Your task to perform on an android device: Open display settings Image 0: 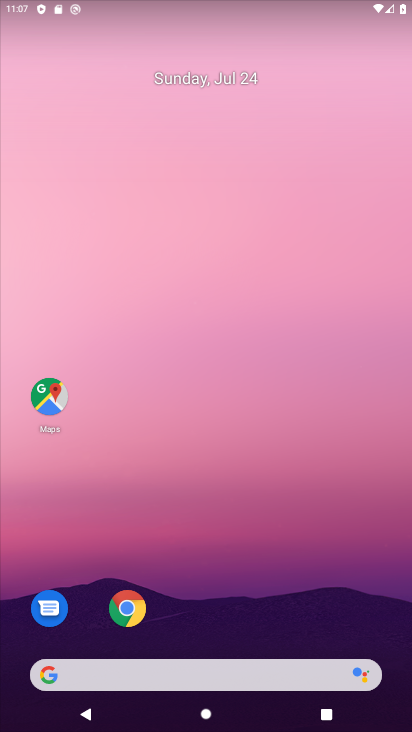
Step 0: press home button
Your task to perform on an android device: Open display settings Image 1: 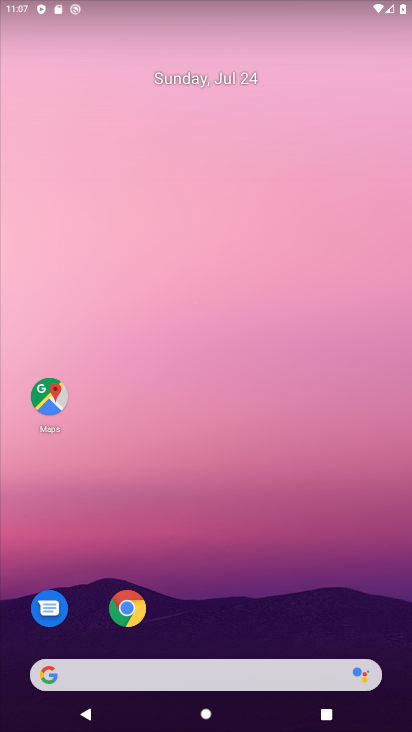
Step 1: drag from (226, 594) to (256, 4)
Your task to perform on an android device: Open display settings Image 2: 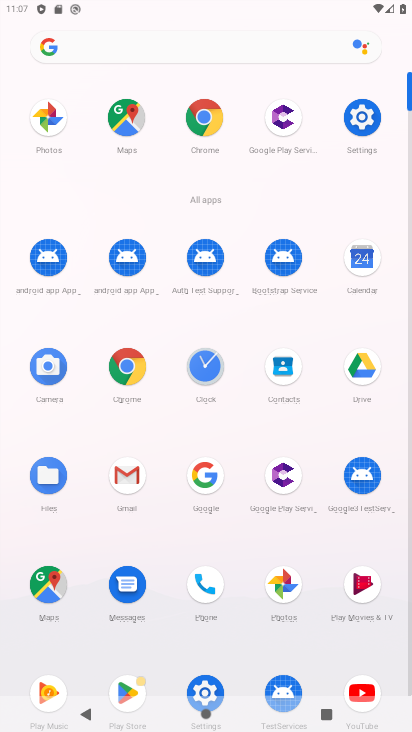
Step 2: click (359, 127)
Your task to perform on an android device: Open display settings Image 3: 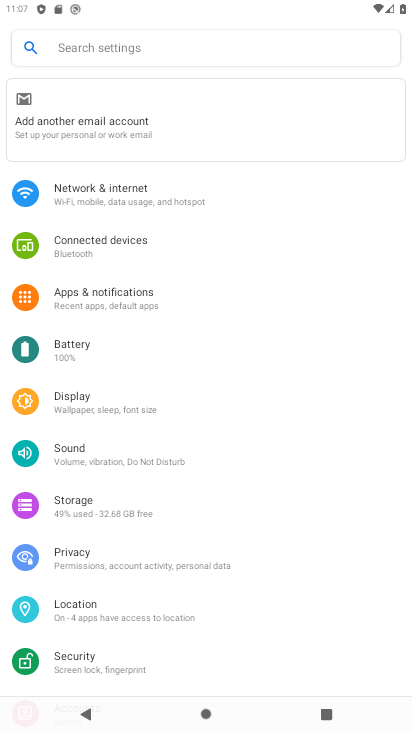
Step 3: click (76, 411)
Your task to perform on an android device: Open display settings Image 4: 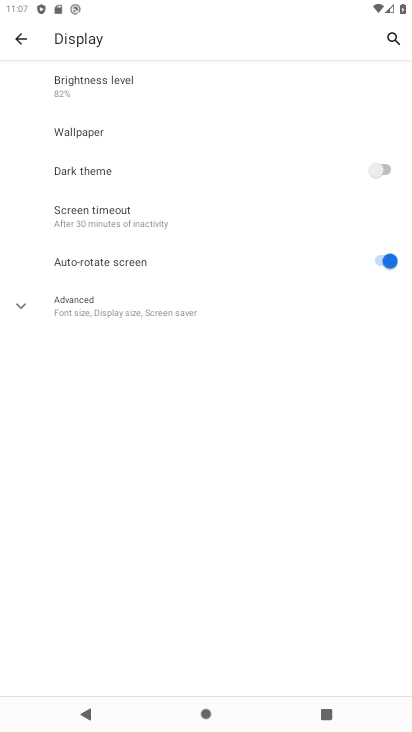
Step 4: click (21, 308)
Your task to perform on an android device: Open display settings Image 5: 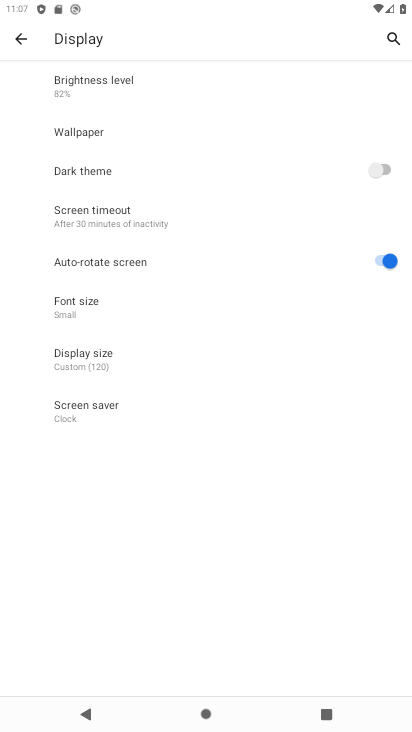
Step 5: task complete